Your task to perform on an android device: turn off notifications settings in the gmail app Image 0: 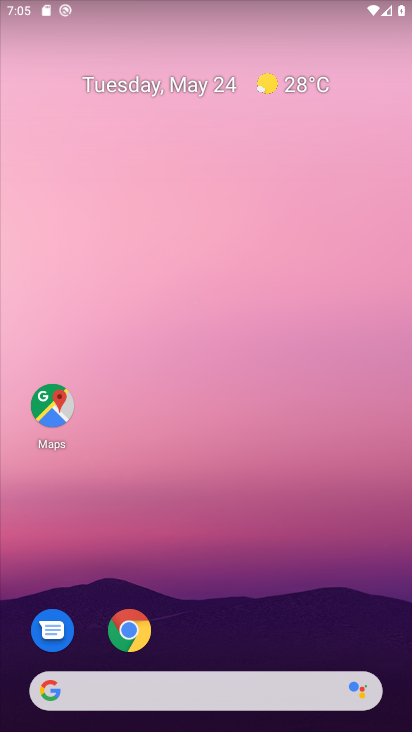
Step 0: drag from (302, 709) to (201, 90)
Your task to perform on an android device: turn off notifications settings in the gmail app Image 1: 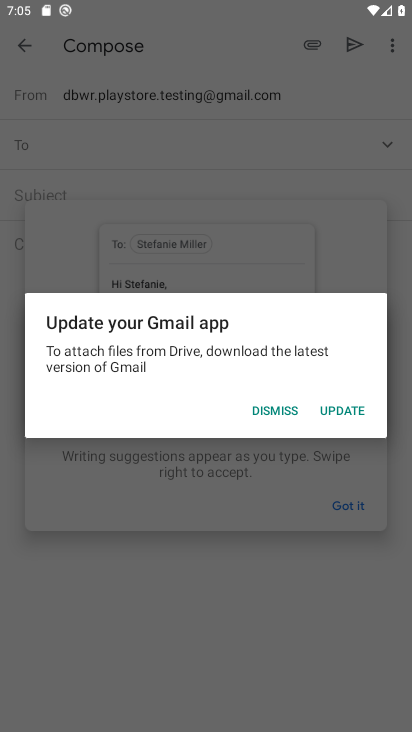
Step 1: press home button
Your task to perform on an android device: turn off notifications settings in the gmail app Image 2: 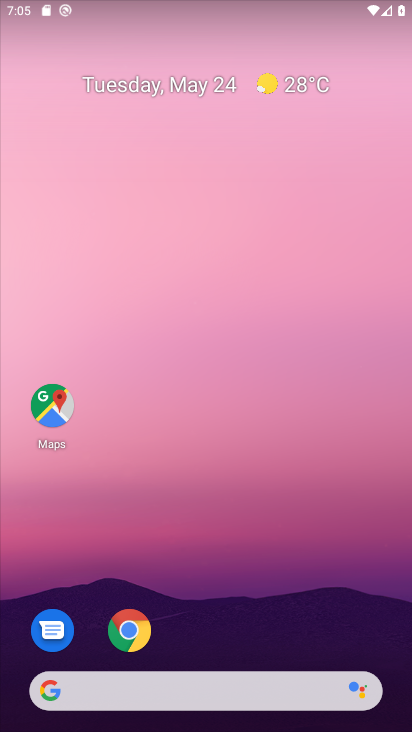
Step 2: drag from (280, 705) to (159, 145)
Your task to perform on an android device: turn off notifications settings in the gmail app Image 3: 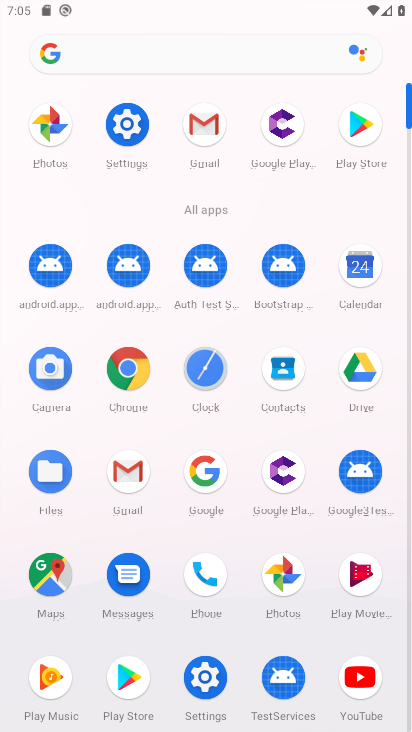
Step 3: click (144, 465)
Your task to perform on an android device: turn off notifications settings in the gmail app Image 4: 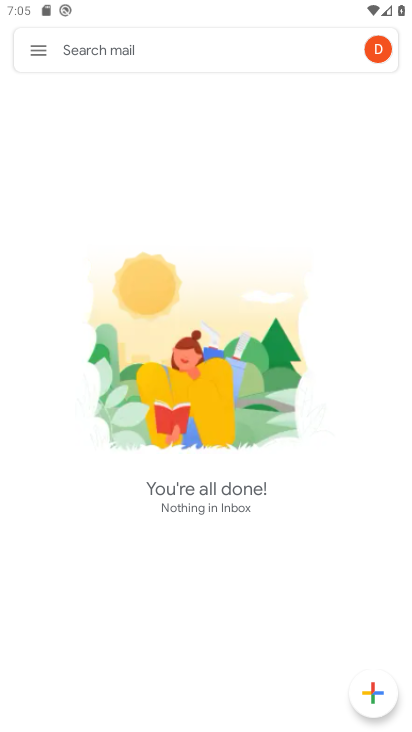
Step 4: click (41, 56)
Your task to perform on an android device: turn off notifications settings in the gmail app Image 5: 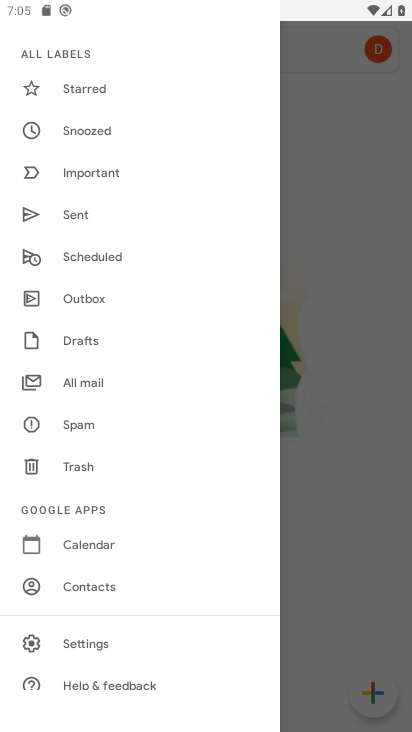
Step 5: click (86, 644)
Your task to perform on an android device: turn off notifications settings in the gmail app Image 6: 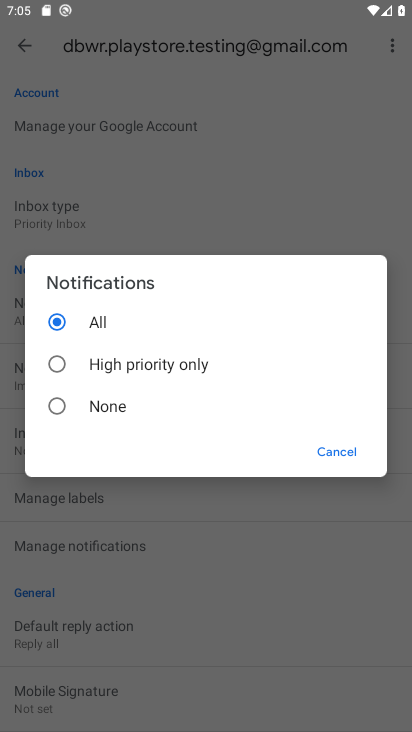
Step 6: click (155, 404)
Your task to perform on an android device: turn off notifications settings in the gmail app Image 7: 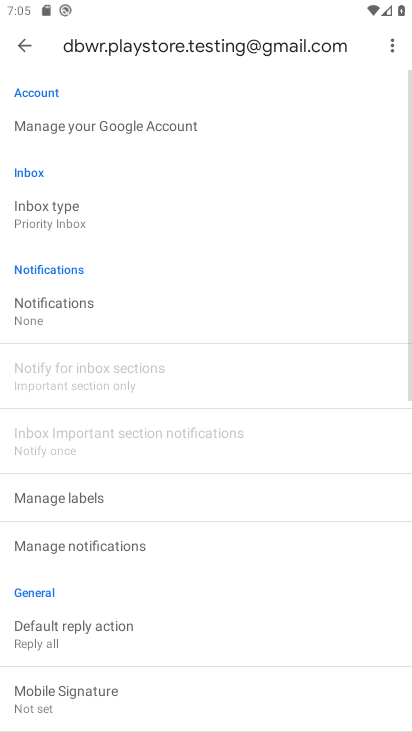
Step 7: task complete